Your task to perform on an android device: Clear all items from cart on ebay.com. Add logitech g pro to the cart on ebay.com Image 0: 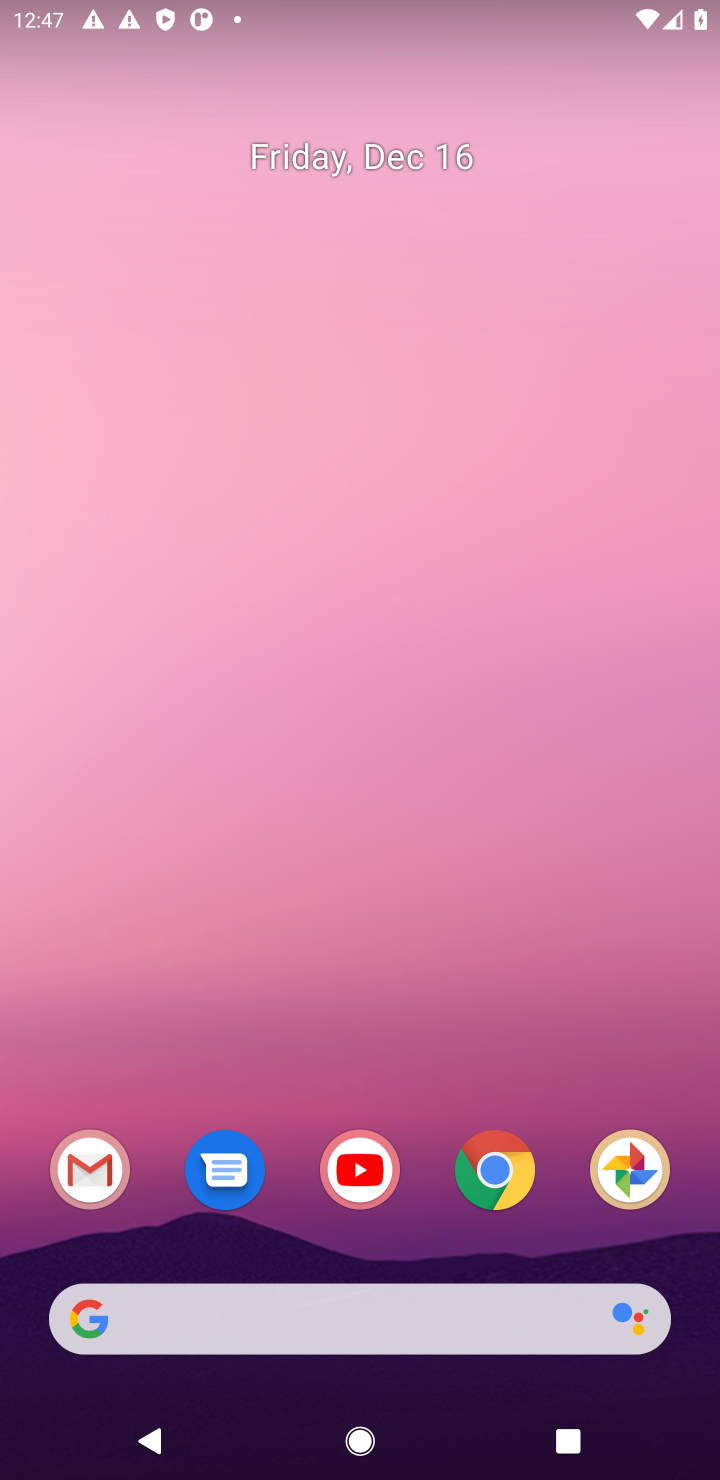
Step 0: click (497, 1184)
Your task to perform on an android device: Clear all items from cart on ebay.com. Add logitech g pro to the cart on ebay.com Image 1: 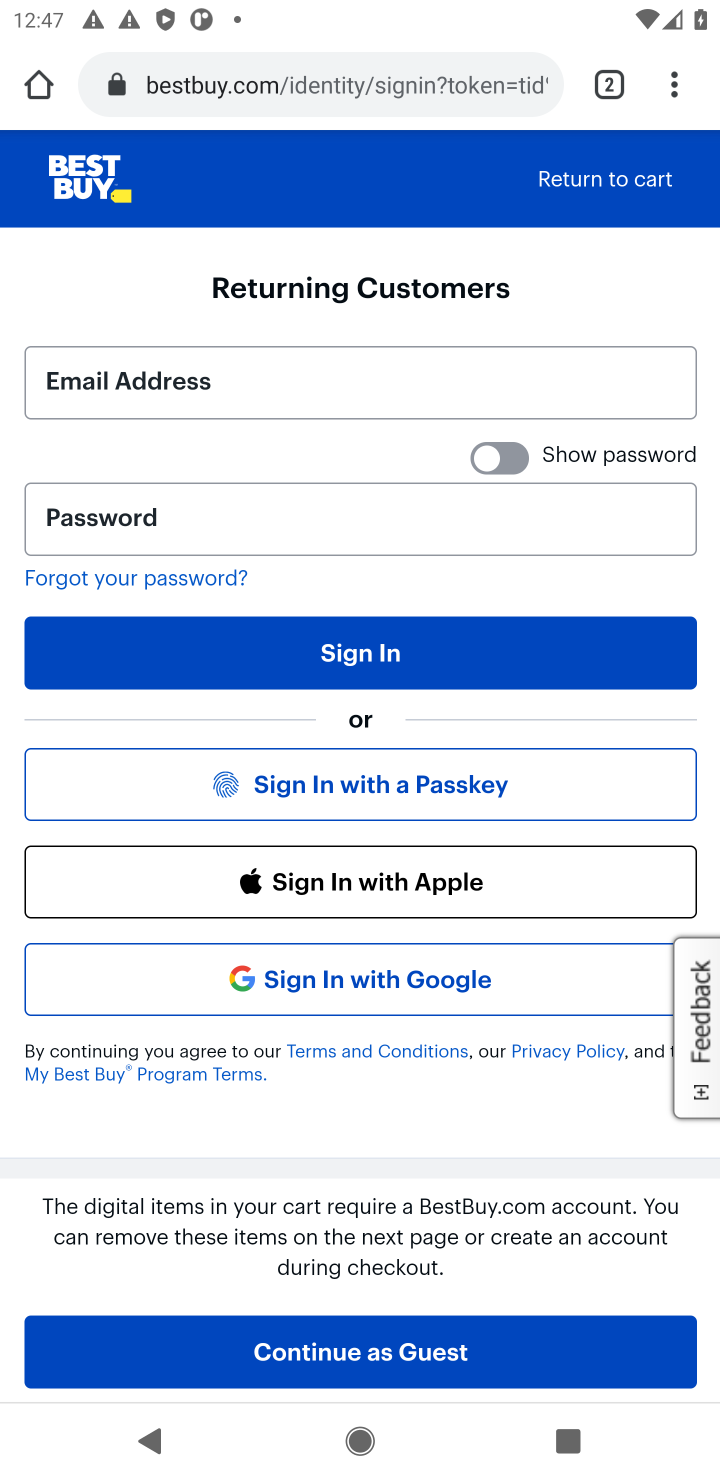
Step 1: click (327, 82)
Your task to perform on an android device: Clear all items from cart on ebay.com. Add logitech g pro to the cart on ebay.com Image 2: 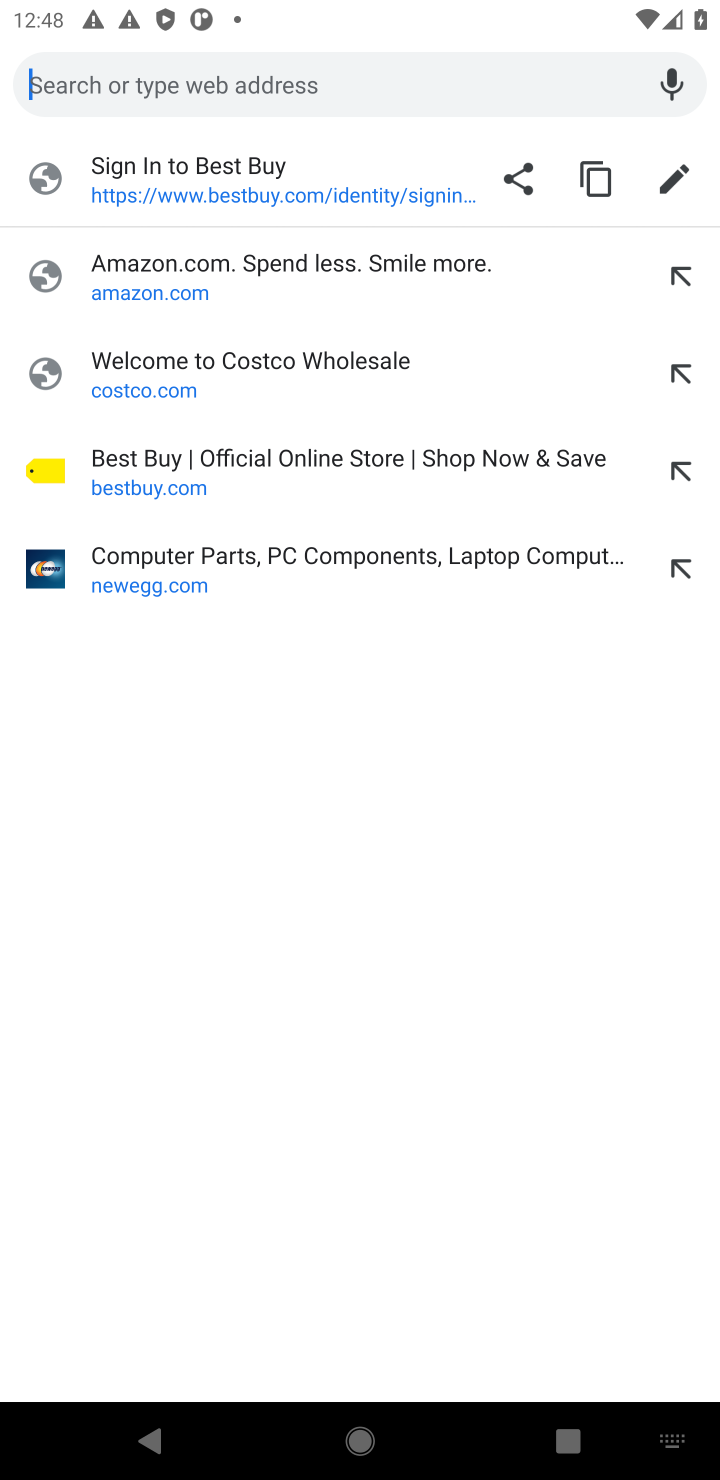
Step 2: type "ebay.com"
Your task to perform on an android device: Clear all items from cart on ebay.com. Add logitech g pro to the cart on ebay.com Image 3: 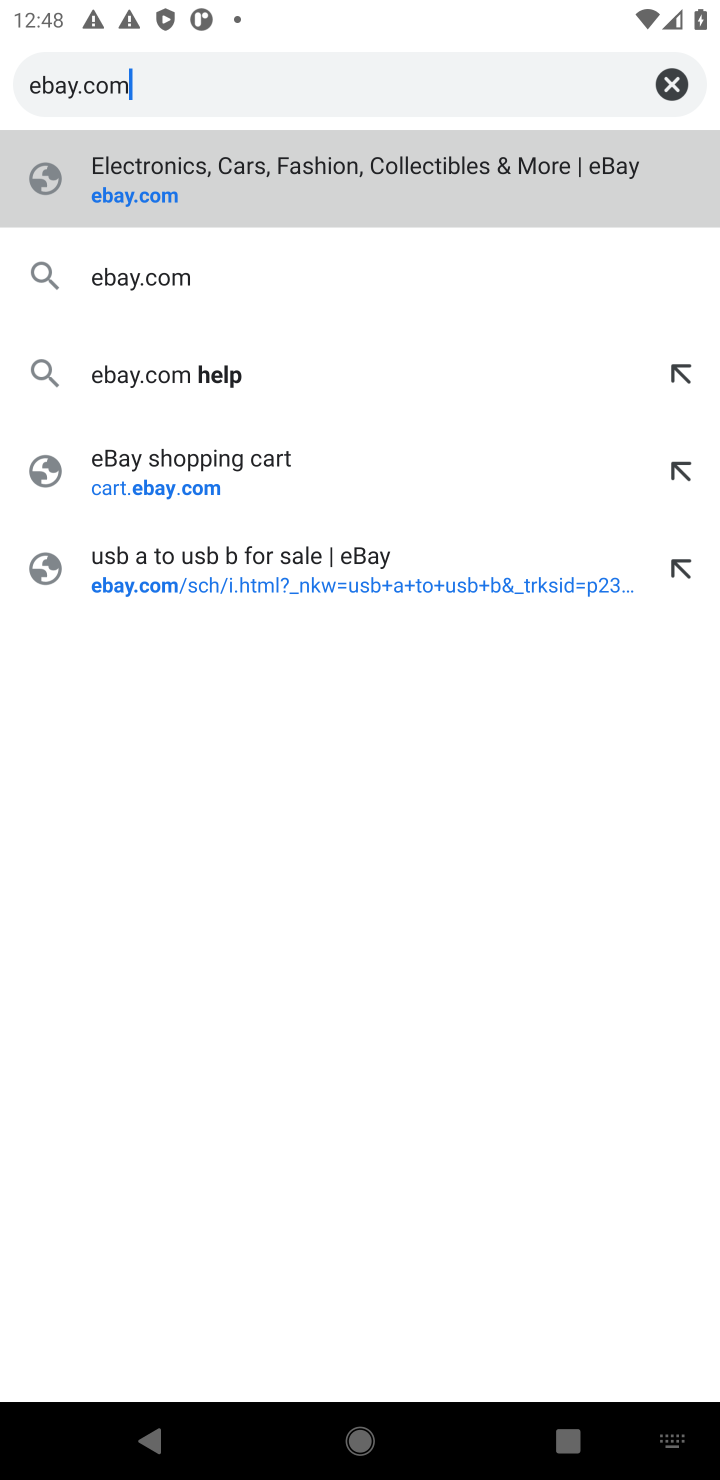
Step 3: click (126, 198)
Your task to perform on an android device: Clear all items from cart on ebay.com. Add logitech g pro to the cart on ebay.com Image 4: 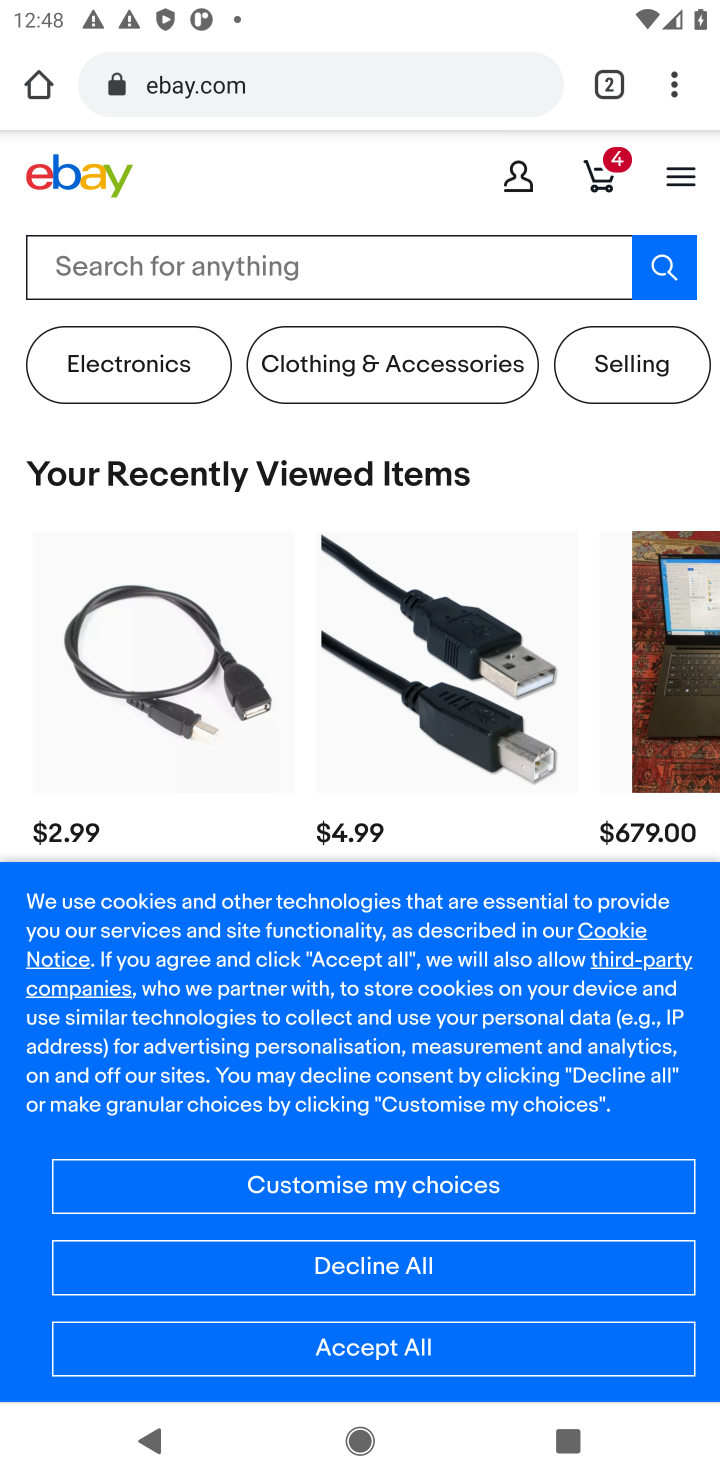
Step 4: click (607, 183)
Your task to perform on an android device: Clear all items from cart on ebay.com. Add logitech g pro to the cart on ebay.com Image 5: 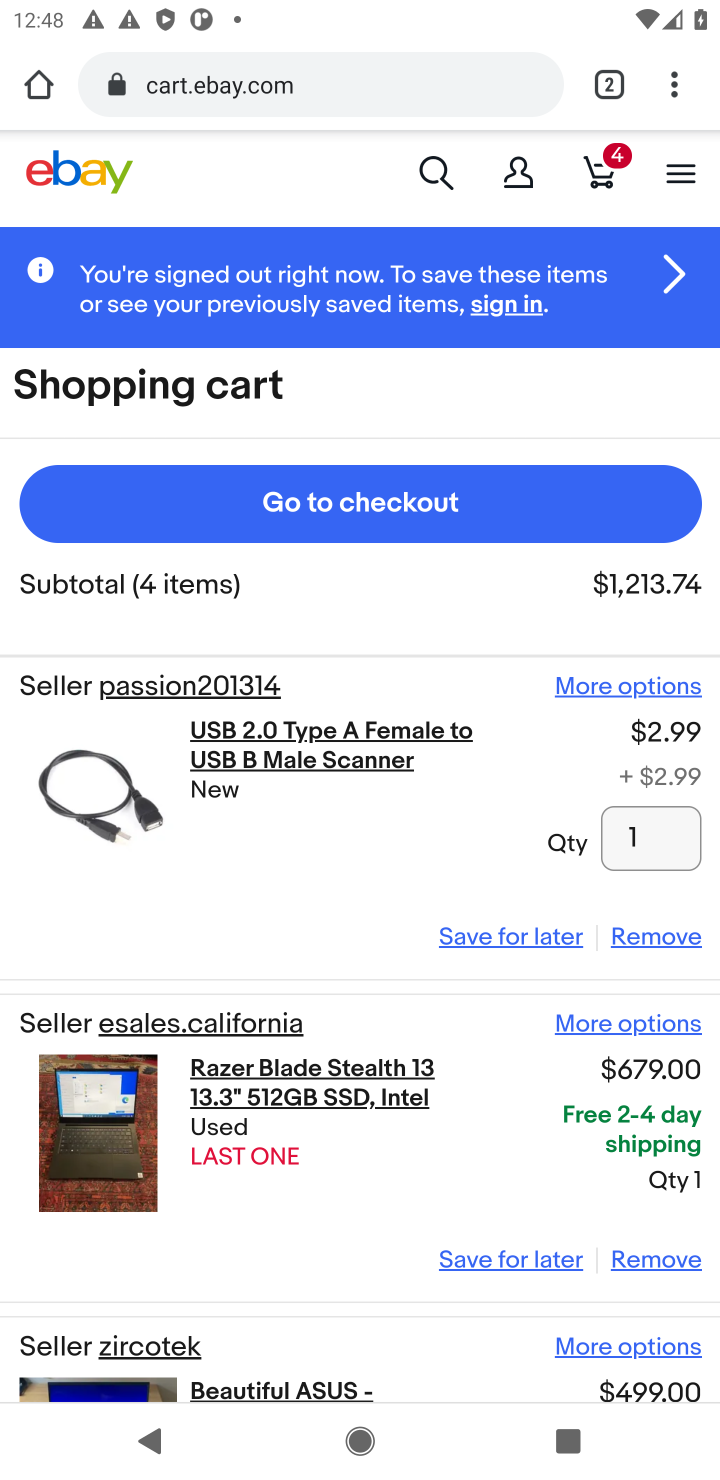
Step 5: click (692, 937)
Your task to perform on an android device: Clear all items from cart on ebay.com. Add logitech g pro to the cart on ebay.com Image 6: 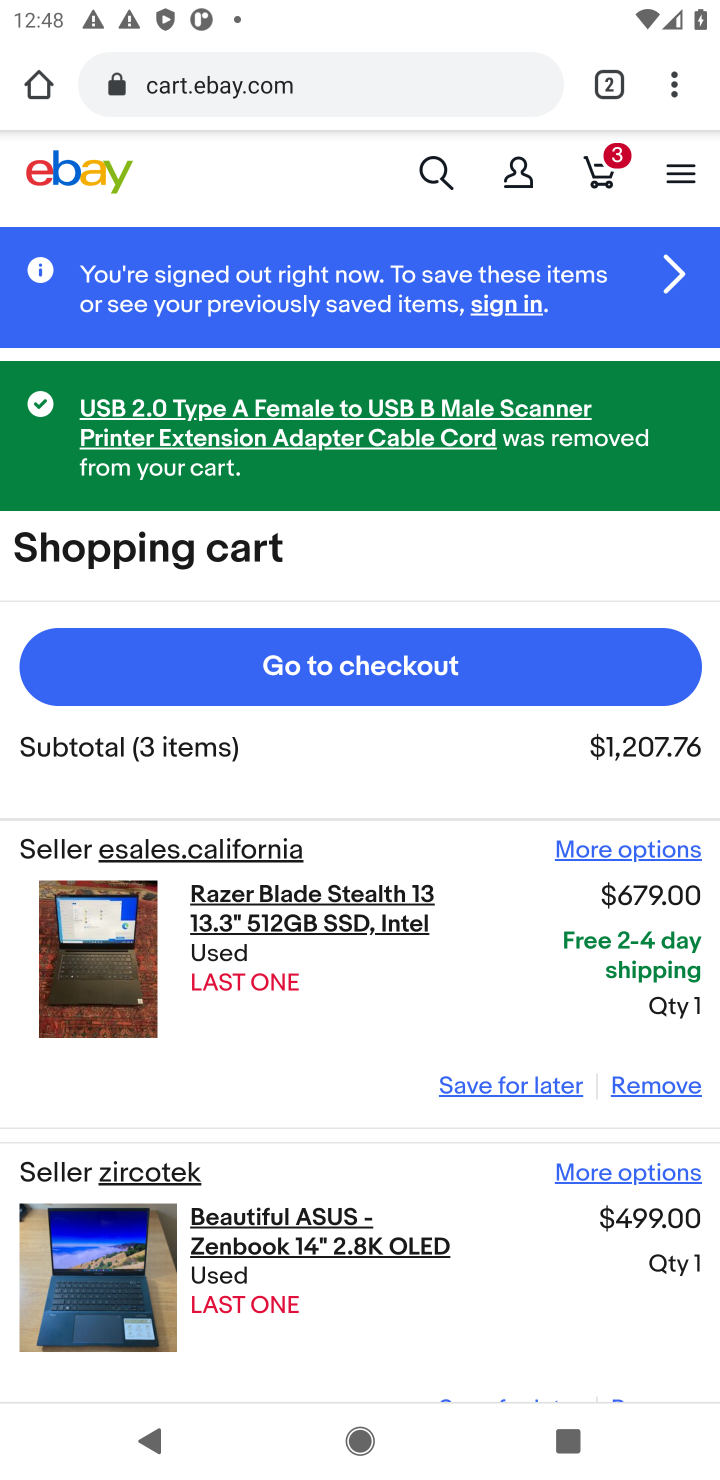
Step 6: click (659, 1081)
Your task to perform on an android device: Clear all items from cart on ebay.com. Add logitech g pro to the cart on ebay.com Image 7: 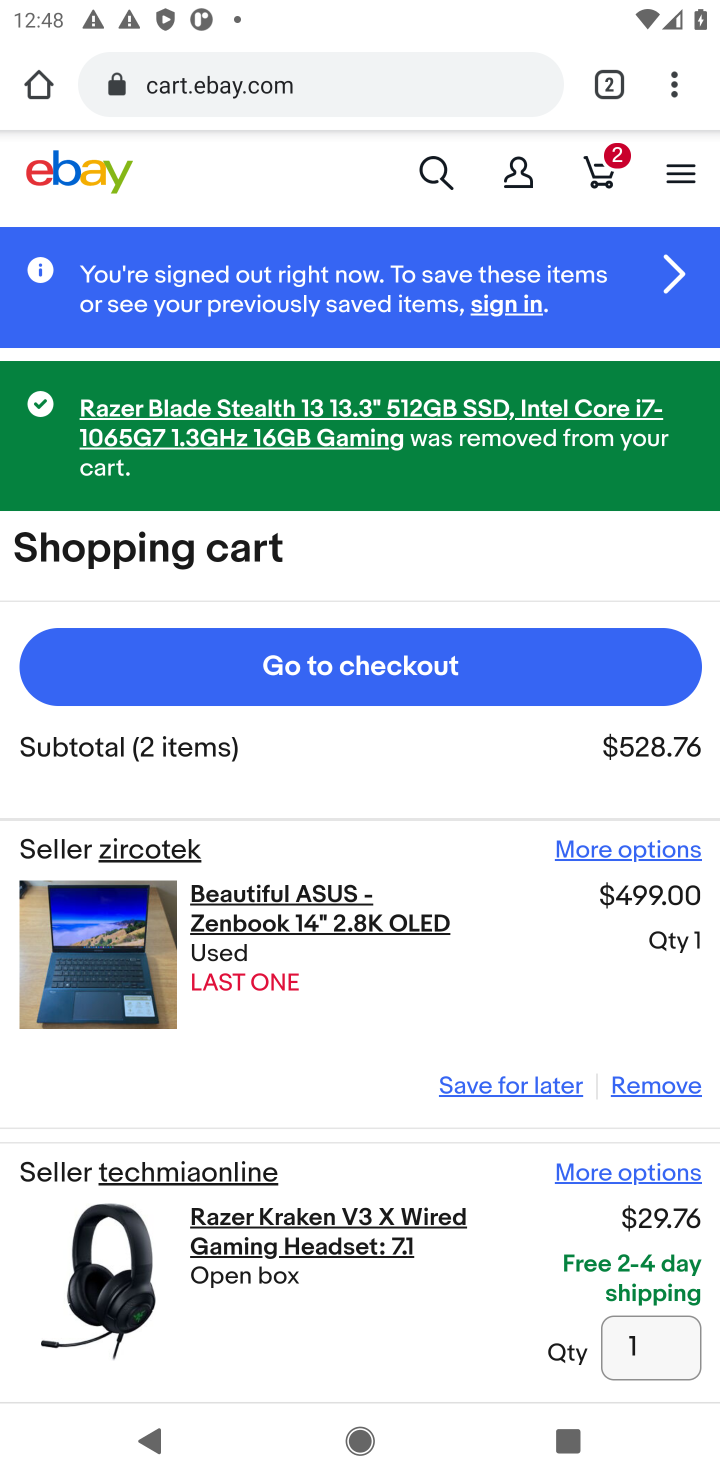
Step 7: click (659, 1081)
Your task to perform on an android device: Clear all items from cart on ebay.com. Add logitech g pro to the cart on ebay.com Image 8: 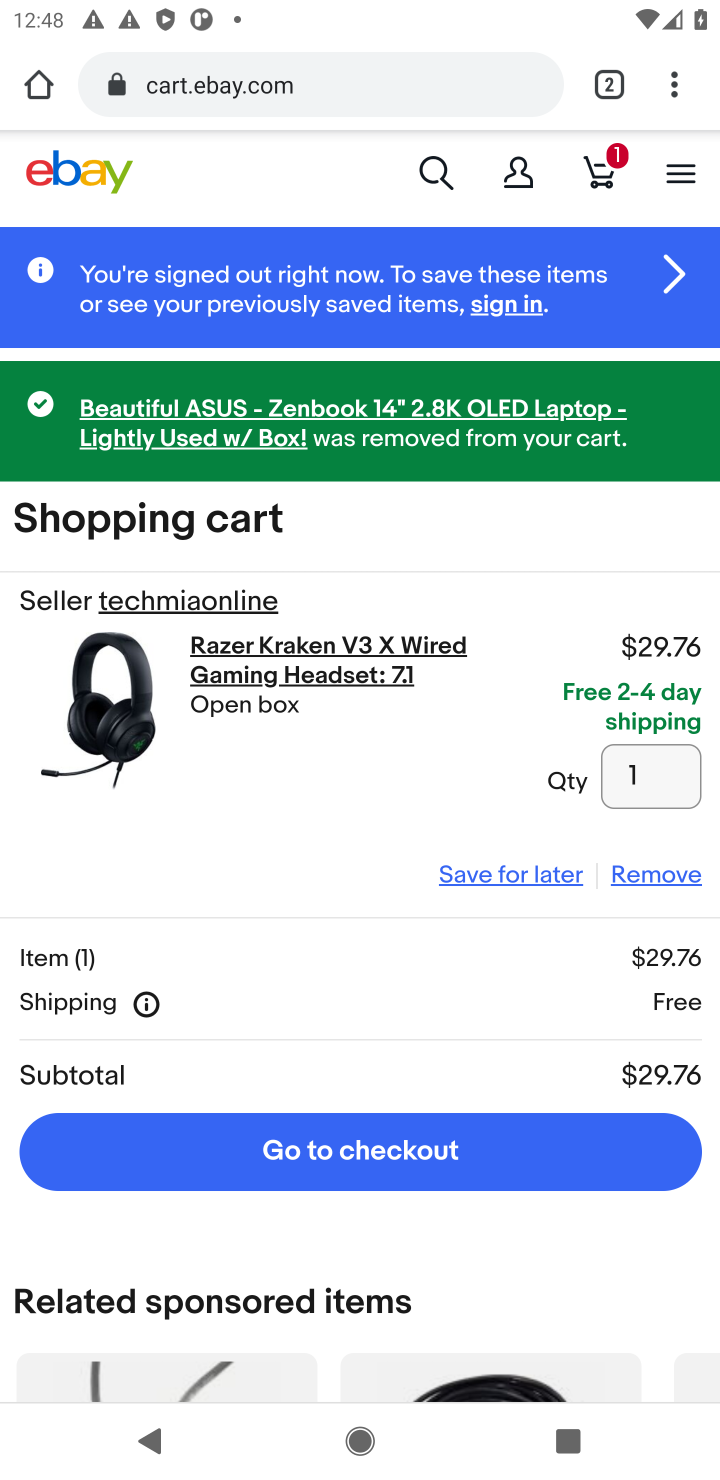
Step 8: click (642, 877)
Your task to perform on an android device: Clear all items from cart on ebay.com. Add logitech g pro to the cart on ebay.com Image 9: 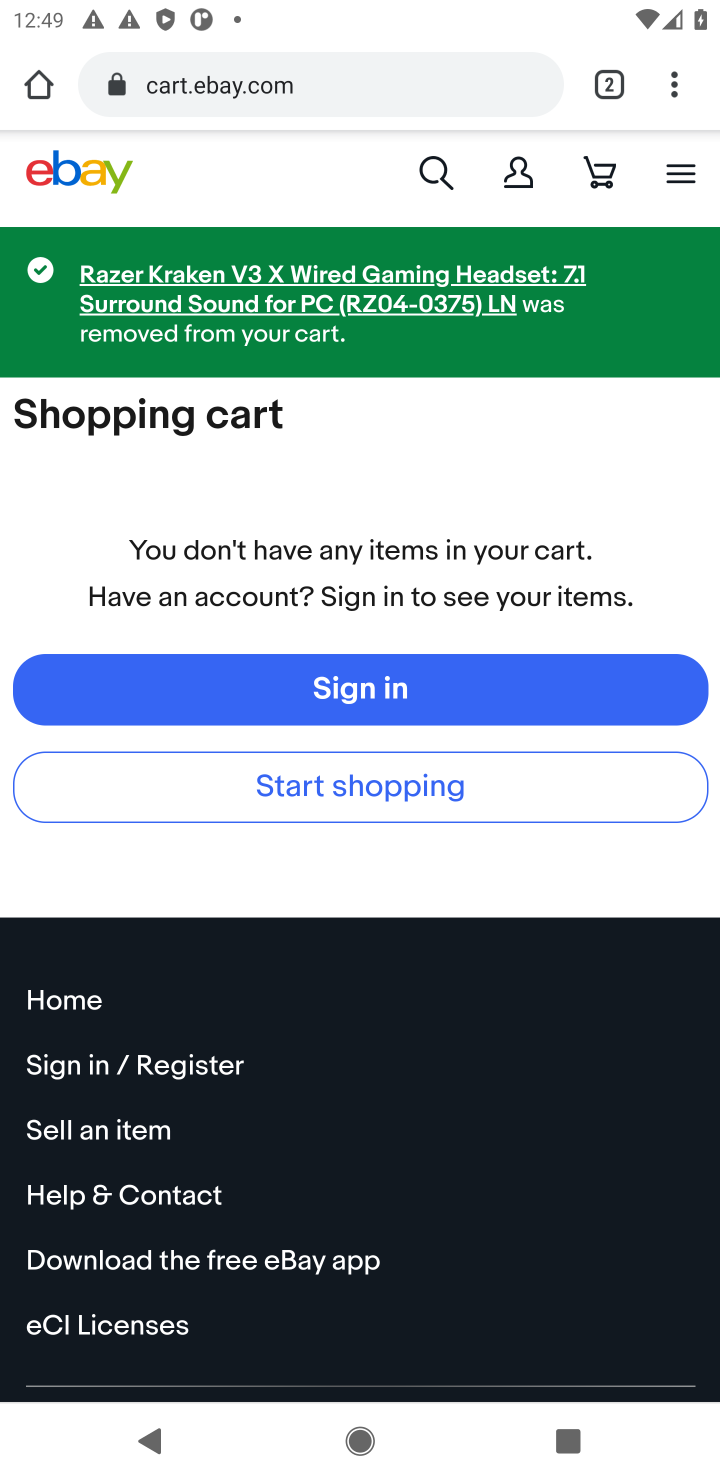
Step 9: click (434, 181)
Your task to perform on an android device: Clear all items from cart on ebay.com. Add logitech g pro to the cart on ebay.com Image 10: 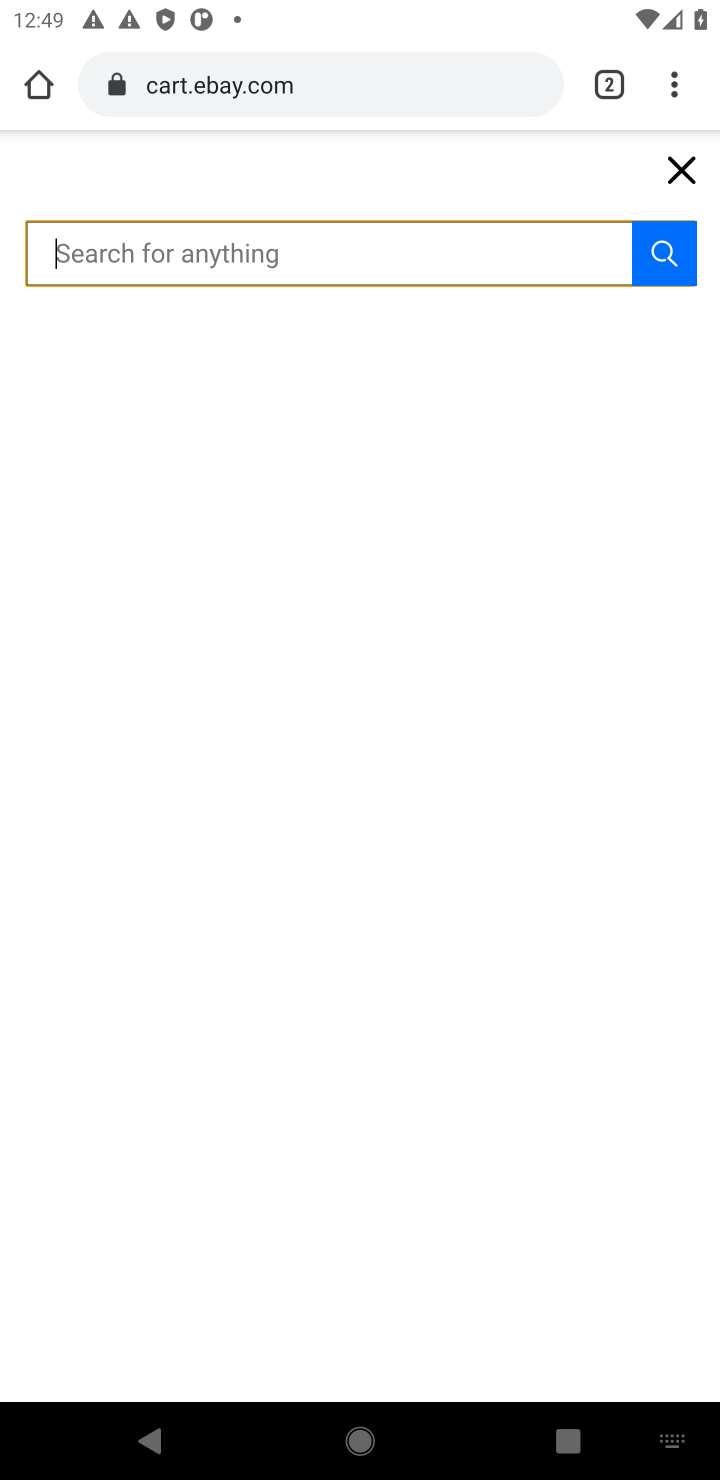
Step 10: type "logitech g pro "
Your task to perform on an android device: Clear all items from cart on ebay.com. Add logitech g pro to the cart on ebay.com Image 11: 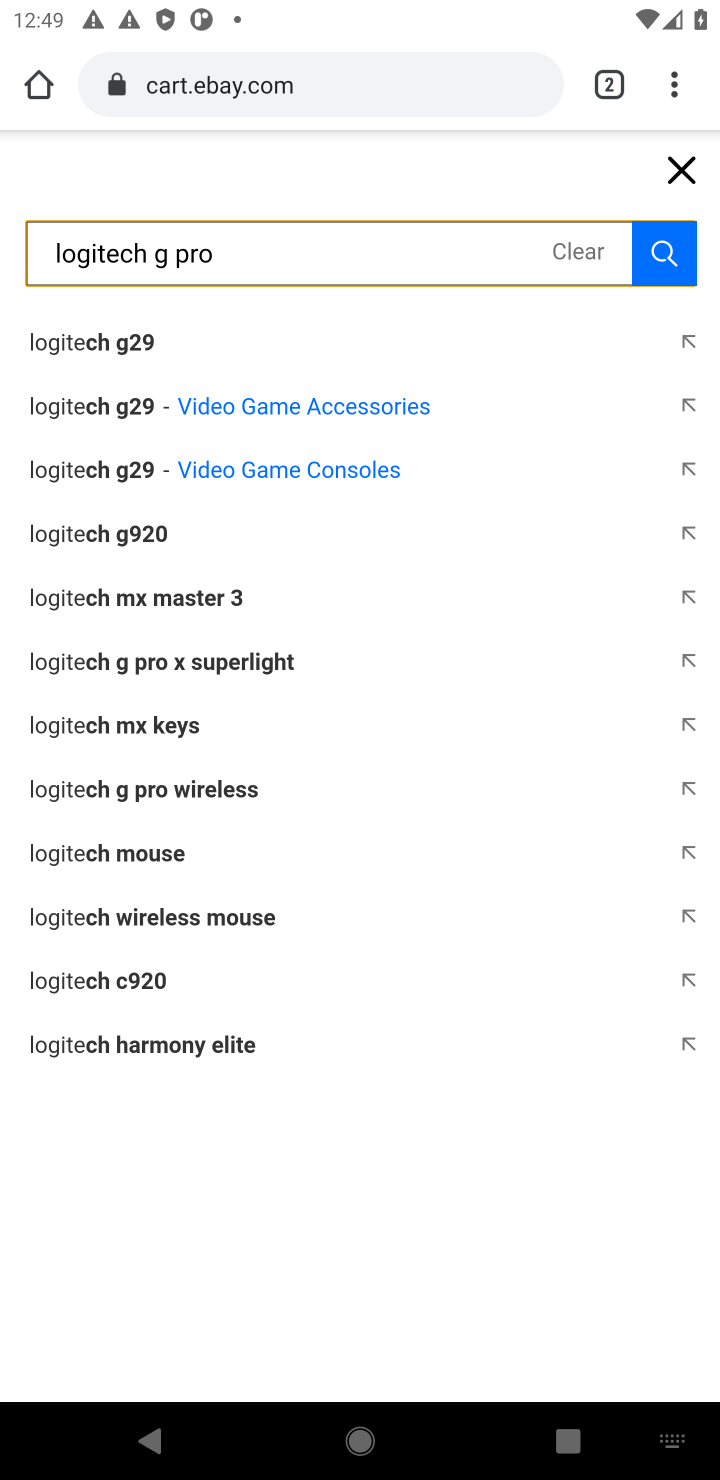
Step 11: click (669, 255)
Your task to perform on an android device: Clear all items from cart on ebay.com. Add logitech g pro to the cart on ebay.com Image 12: 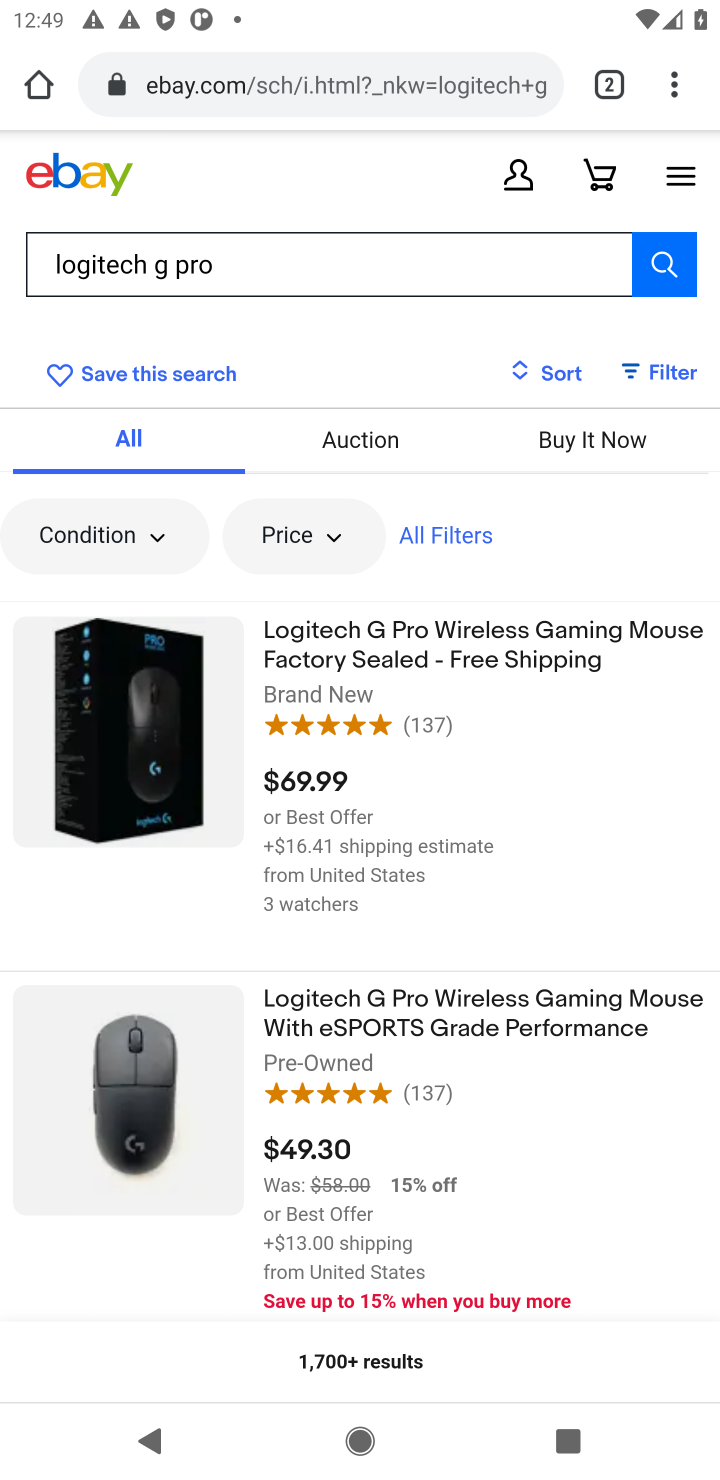
Step 12: click (327, 685)
Your task to perform on an android device: Clear all items from cart on ebay.com. Add logitech g pro to the cart on ebay.com Image 13: 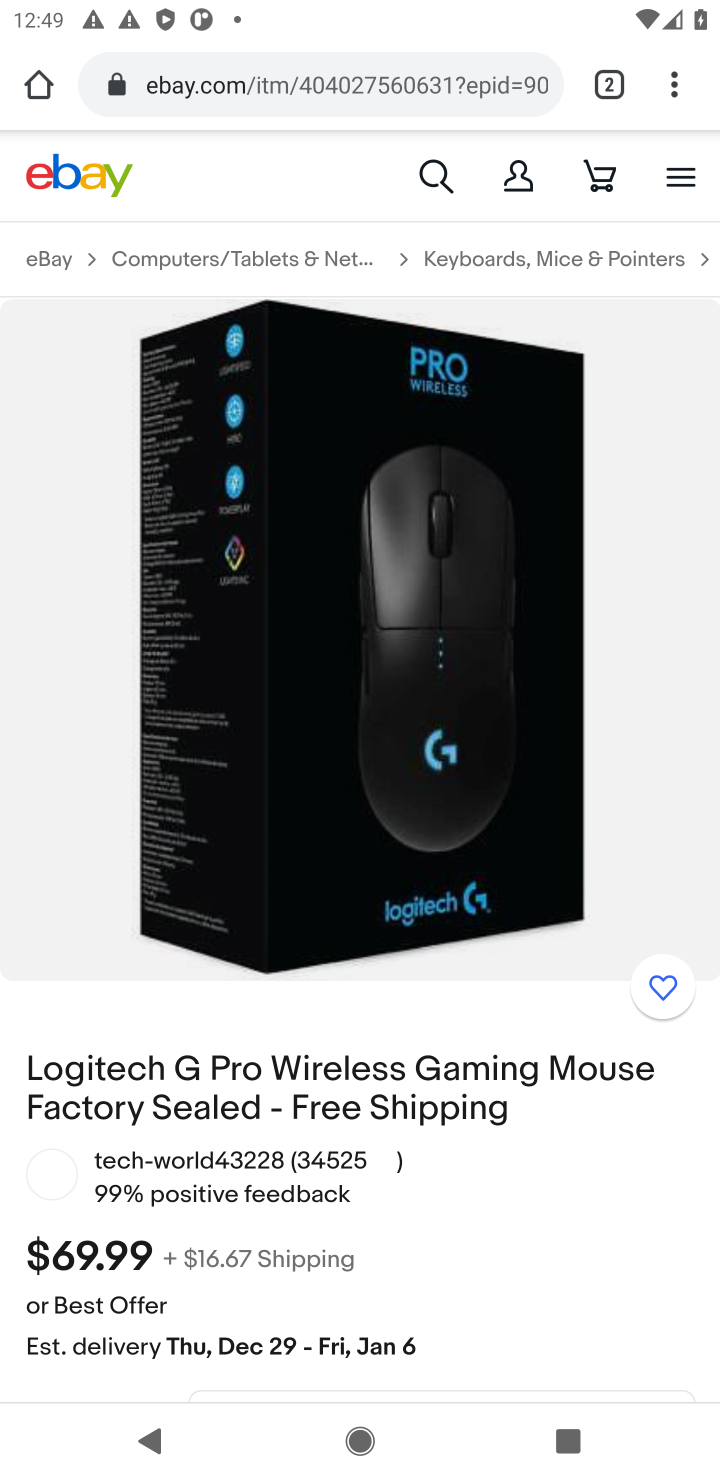
Step 13: drag from (410, 1152) to (340, 519)
Your task to perform on an android device: Clear all items from cart on ebay.com. Add logitech g pro to the cart on ebay.com Image 14: 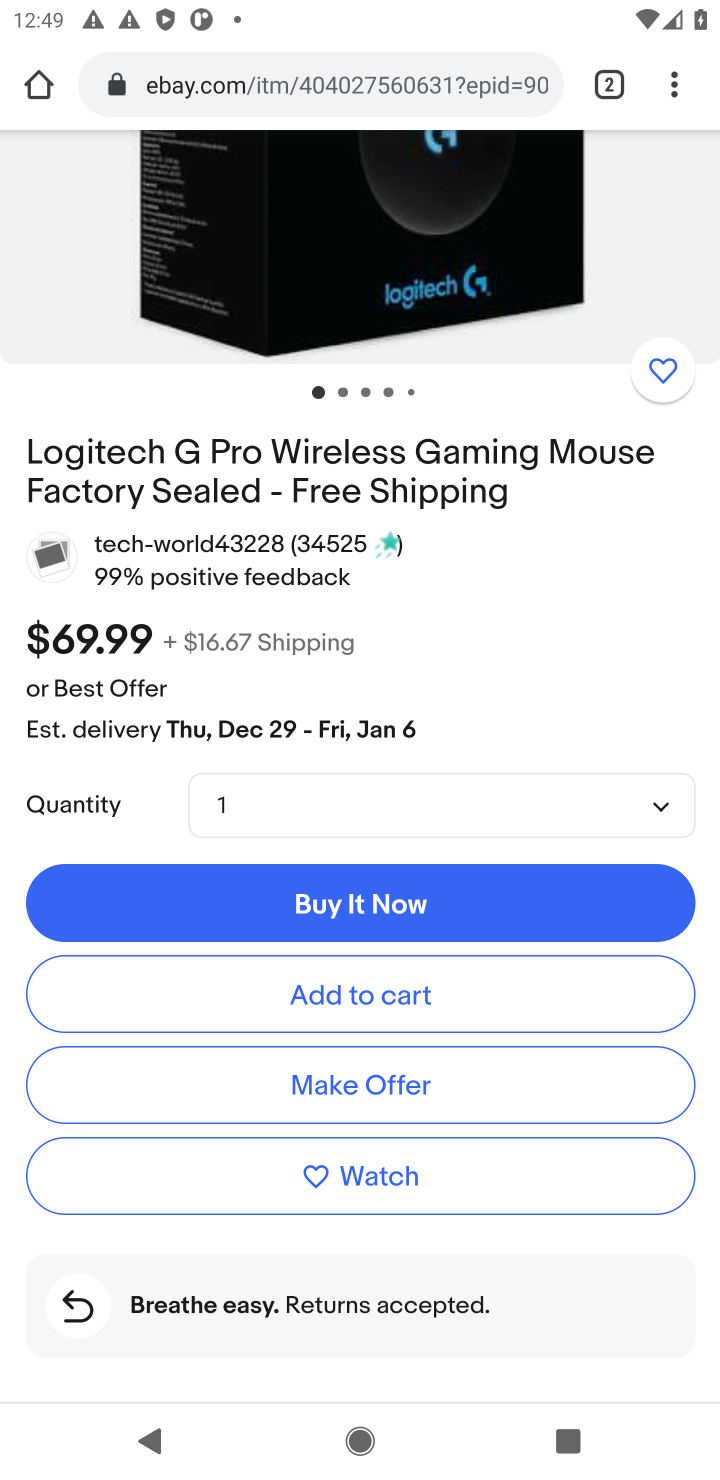
Step 14: click (343, 999)
Your task to perform on an android device: Clear all items from cart on ebay.com. Add logitech g pro to the cart on ebay.com Image 15: 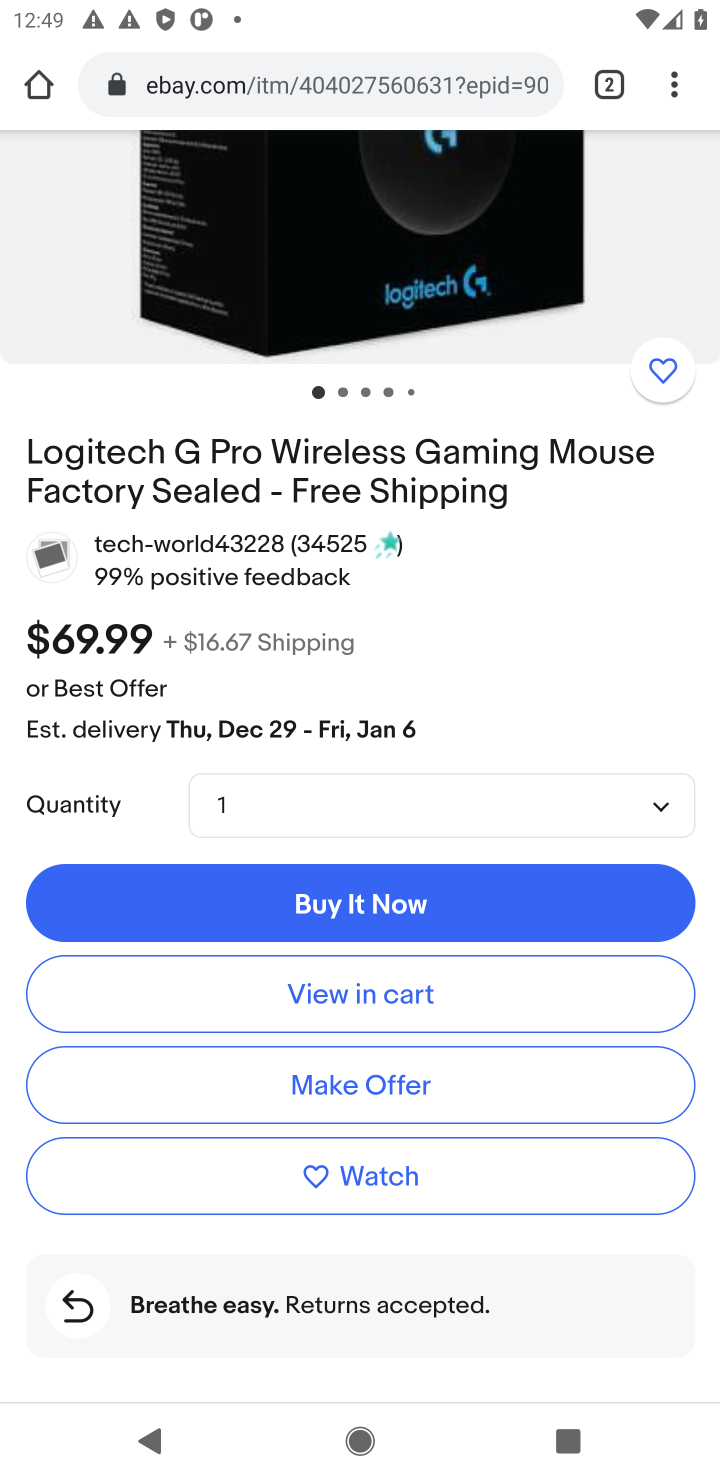
Step 15: task complete